Your task to perform on an android device: Open network settings Image 0: 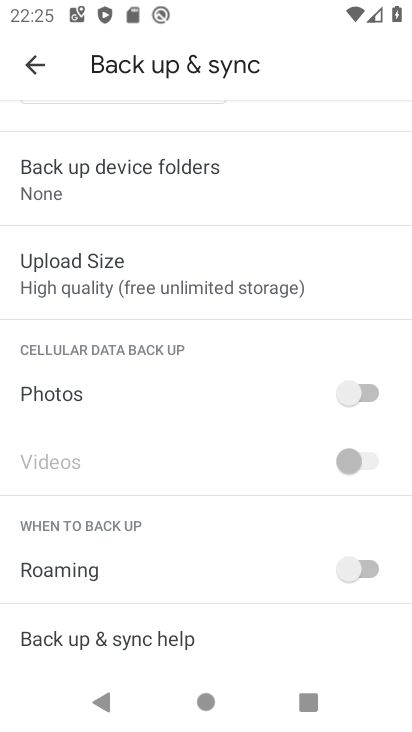
Step 0: press home button
Your task to perform on an android device: Open network settings Image 1: 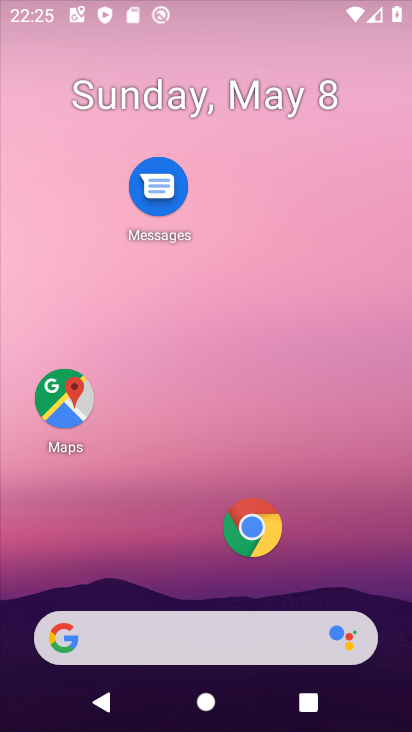
Step 1: drag from (170, 569) to (197, 99)
Your task to perform on an android device: Open network settings Image 2: 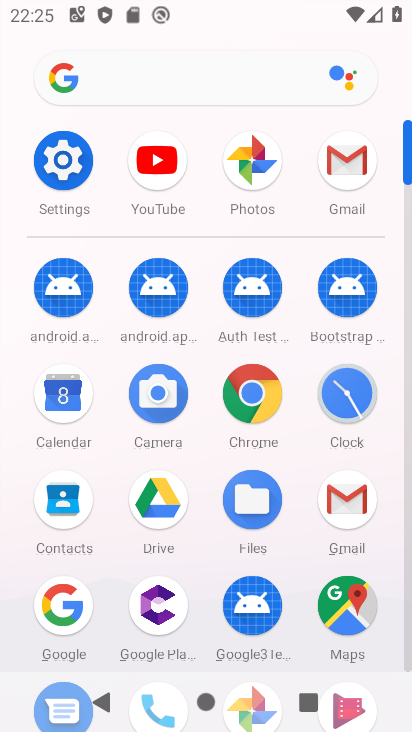
Step 2: click (65, 171)
Your task to perform on an android device: Open network settings Image 3: 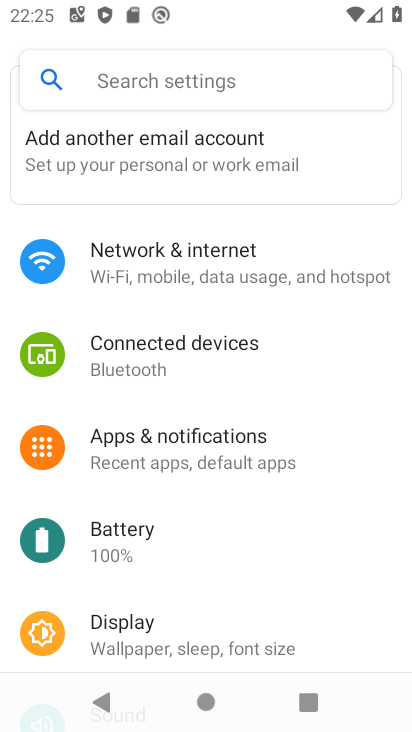
Step 3: click (175, 265)
Your task to perform on an android device: Open network settings Image 4: 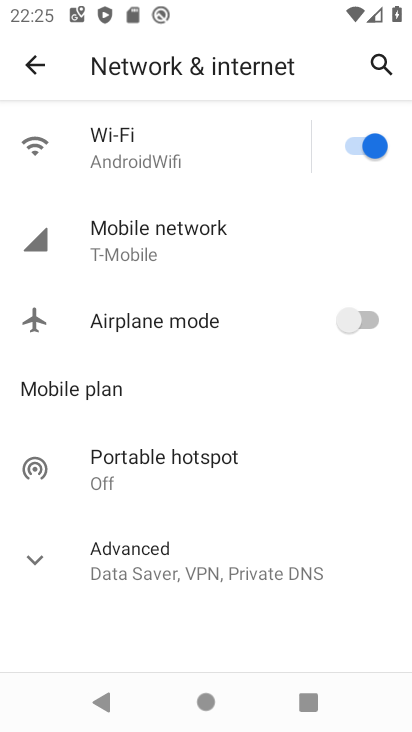
Step 4: click (140, 205)
Your task to perform on an android device: Open network settings Image 5: 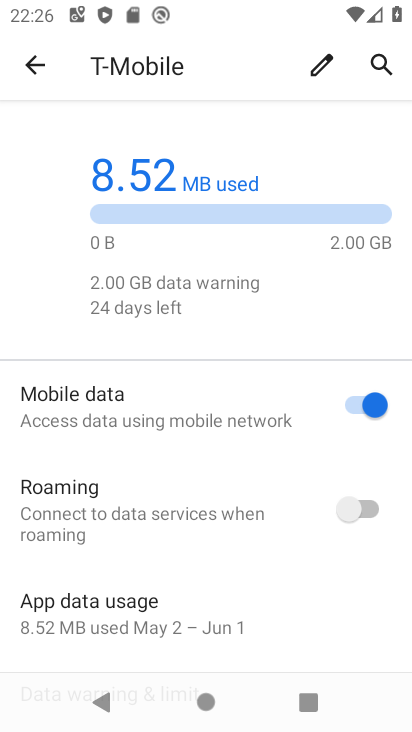
Step 5: task complete